Your task to perform on an android device: open app "Lyft - Rideshare, Bikes, Scooters & Transit" (install if not already installed) and go to login screen Image 0: 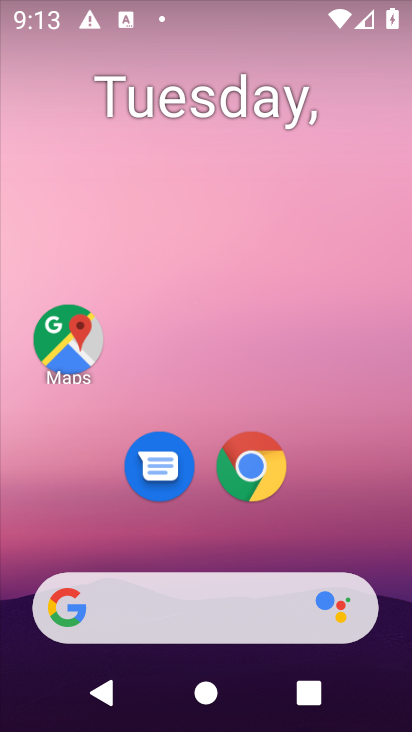
Step 0: drag from (113, 503) to (214, 25)
Your task to perform on an android device: open app "Lyft - Rideshare, Bikes, Scooters & Transit" (install if not already installed) and go to login screen Image 1: 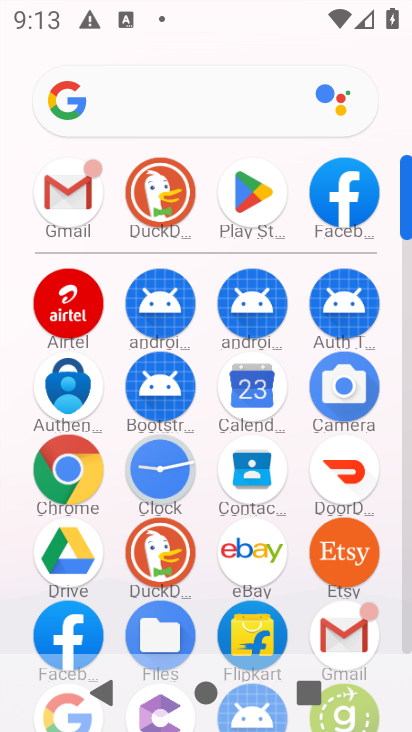
Step 1: click (263, 177)
Your task to perform on an android device: open app "Lyft - Rideshare, Bikes, Scooters & Transit" (install if not already installed) and go to login screen Image 2: 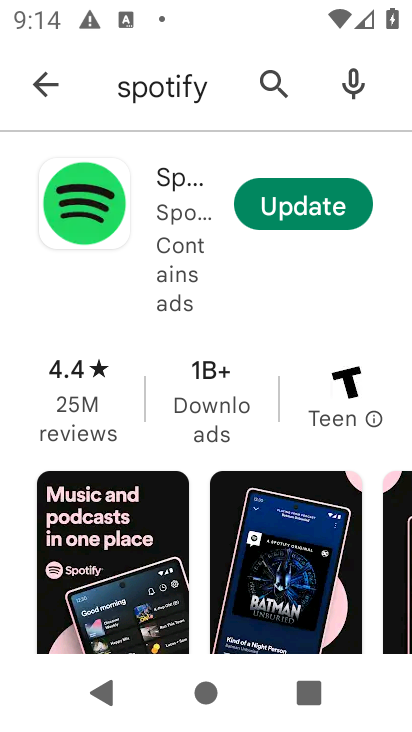
Step 2: click (289, 90)
Your task to perform on an android device: open app "Lyft - Rideshare, Bikes, Scooters & Transit" (install if not already installed) and go to login screen Image 3: 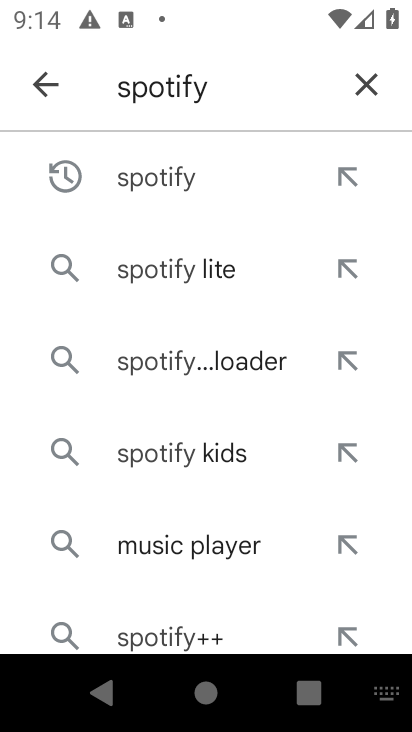
Step 3: click (378, 66)
Your task to perform on an android device: open app "Lyft - Rideshare, Bikes, Scooters & Transit" (install if not already installed) and go to login screen Image 4: 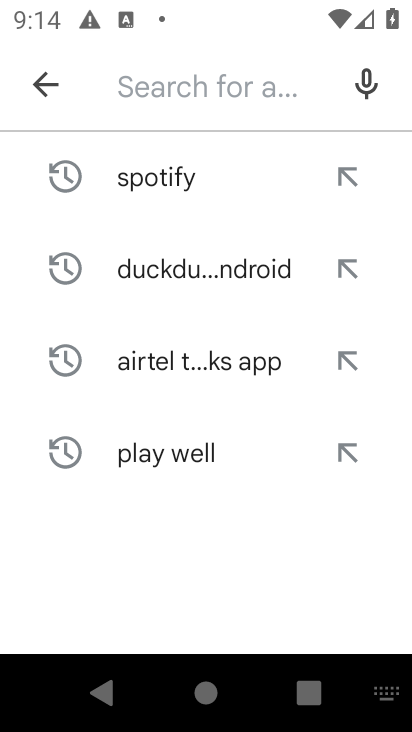
Step 4: click (164, 84)
Your task to perform on an android device: open app "Lyft - Rideshare, Bikes, Scooters & Transit" (install if not already installed) and go to login screen Image 5: 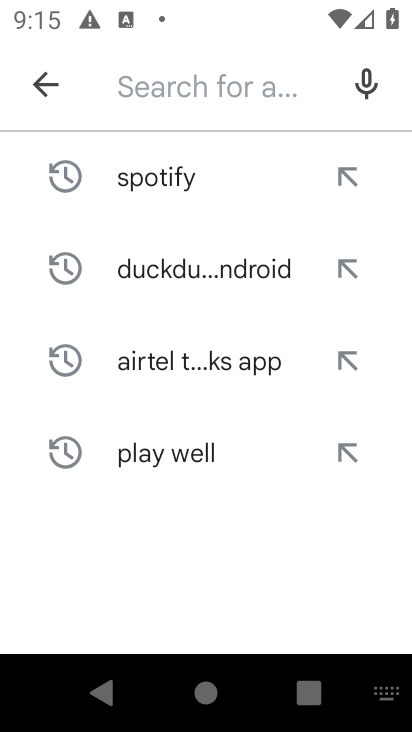
Step 5: type "rideshare"
Your task to perform on an android device: open app "Lyft - Rideshare, Bikes, Scooters & Transit" (install if not already installed) and go to login screen Image 6: 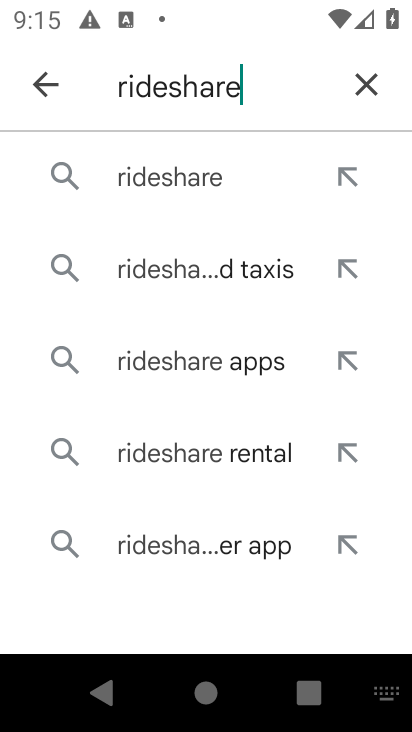
Step 6: click (179, 188)
Your task to perform on an android device: open app "Lyft - Rideshare, Bikes, Scooters & Transit" (install if not already installed) and go to login screen Image 7: 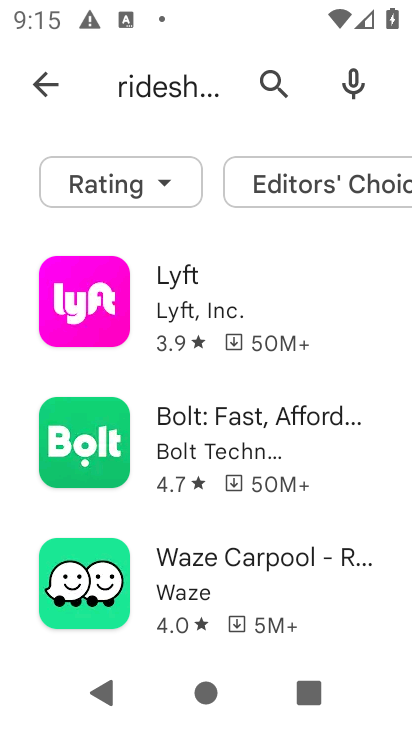
Step 7: click (154, 312)
Your task to perform on an android device: open app "Lyft - Rideshare, Bikes, Scooters & Transit" (install if not already installed) and go to login screen Image 8: 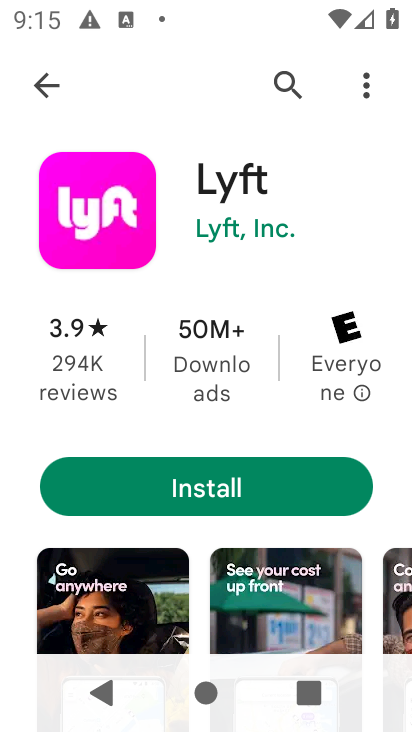
Step 8: click (240, 492)
Your task to perform on an android device: open app "Lyft - Rideshare, Bikes, Scooters & Transit" (install if not already installed) and go to login screen Image 9: 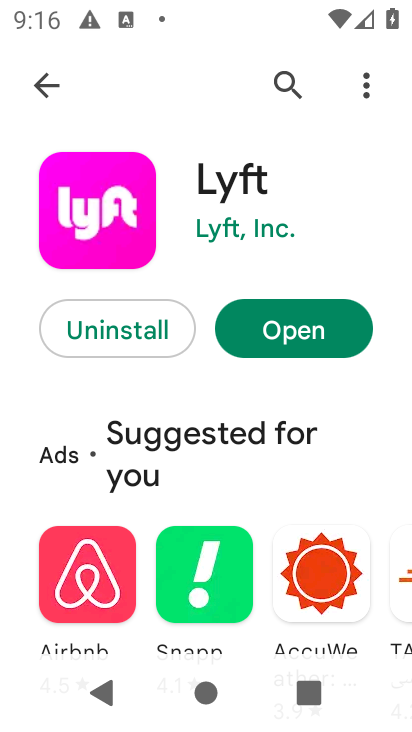
Step 9: click (325, 327)
Your task to perform on an android device: open app "Lyft - Rideshare, Bikes, Scooters & Transit" (install if not already installed) and go to login screen Image 10: 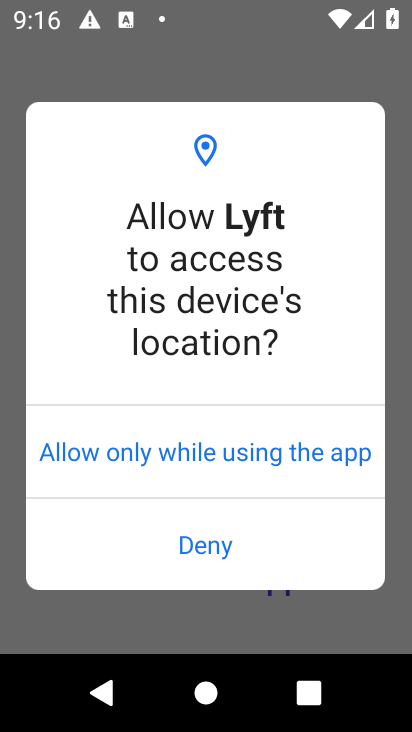
Step 10: click (137, 458)
Your task to perform on an android device: open app "Lyft - Rideshare, Bikes, Scooters & Transit" (install if not already installed) and go to login screen Image 11: 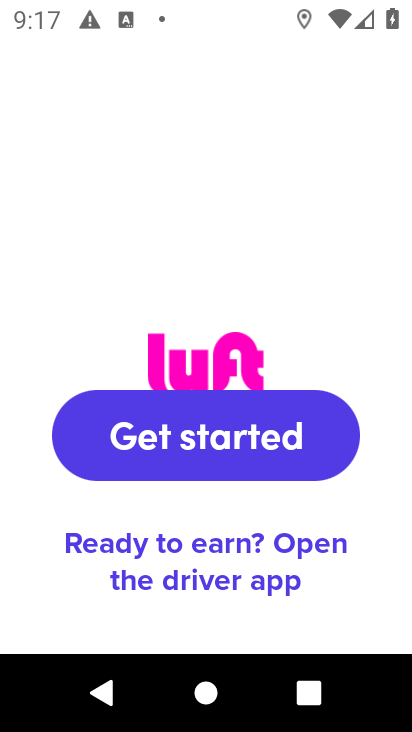
Step 11: click (197, 433)
Your task to perform on an android device: open app "Lyft - Rideshare, Bikes, Scooters & Transit" (install if not already installed) and go to login screen Image 12: 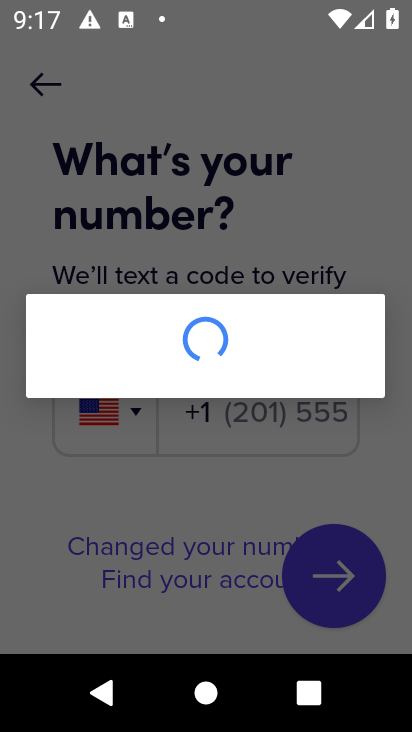
Step 12: task complete